Your task to perform on an android device: turn off priority inbox in the gmail app Image 0: 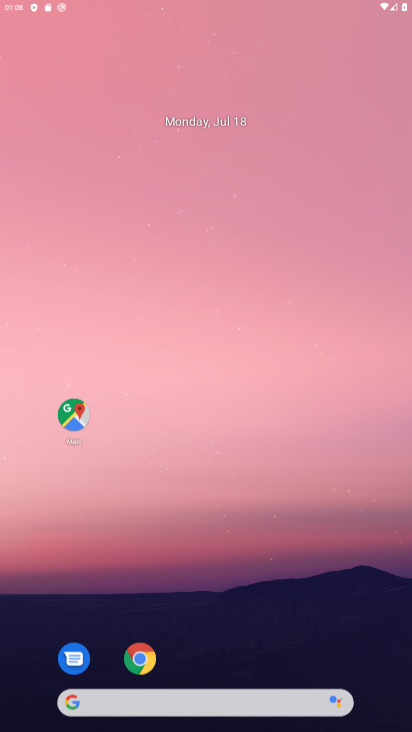
Step 0: click (206, 57)
Your task to perform on an android device: turn off priority inbox in the gmail app Image 1: 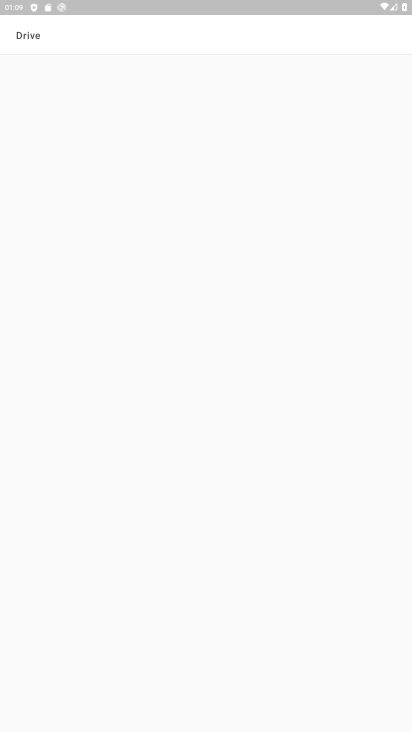
Step 1: press home button
Your task to perform on an android device: turn off priority inbox in the gmail app Image 2: 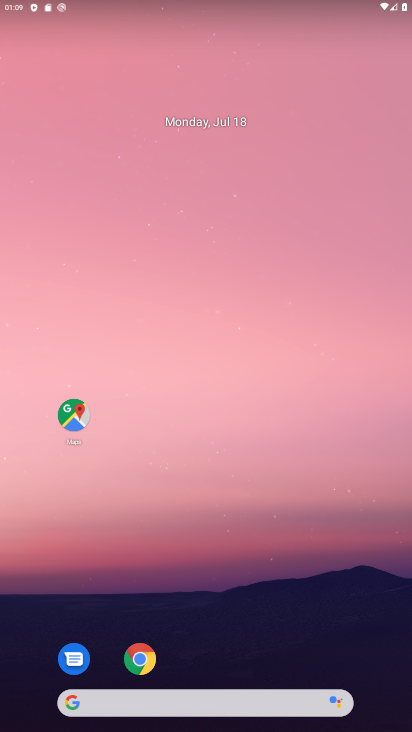
Step 2: drag from (282, 660) to (211, 155)
Your task to perform on an android device: turn off priority inbox in the gmail app Image 3: 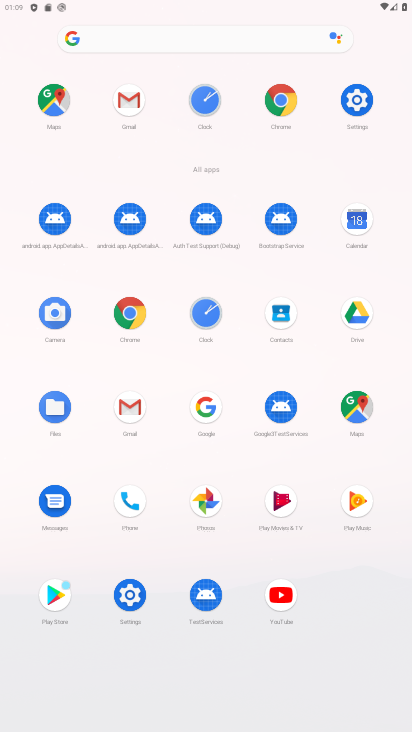
Step 3: click (130, 109)
Your task to perform on an android device: turn off priority inbox in the gmail app Image 4: 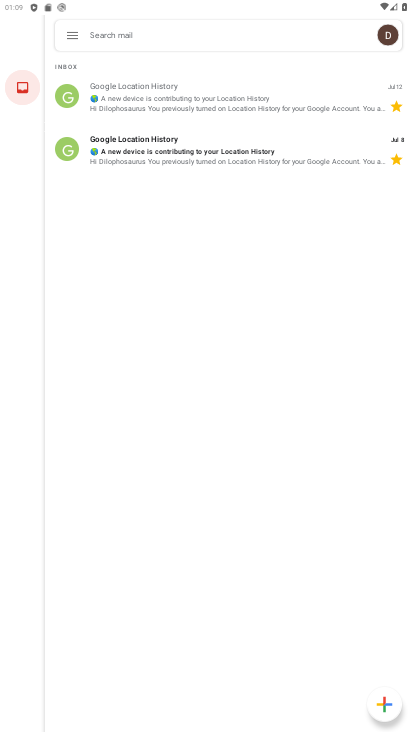
Step 4: click (67, 34)
Your task to perform on an android device: turn off priority inbox in the gmail app Image 5: 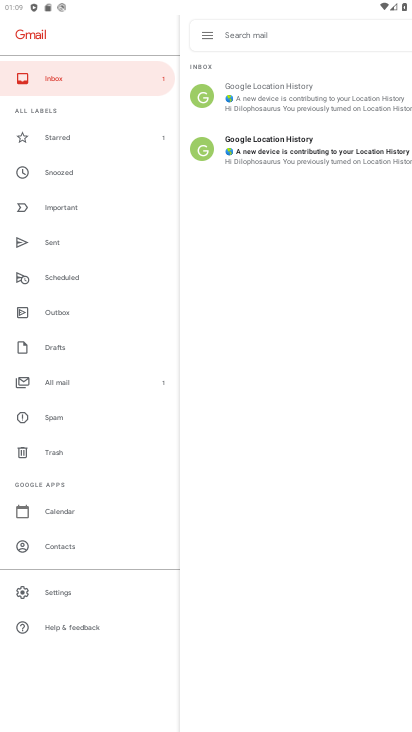
Step 5: click (54, 599)
Your task to perform on an android device: turn off priority inbox in the gmail app Image 6: 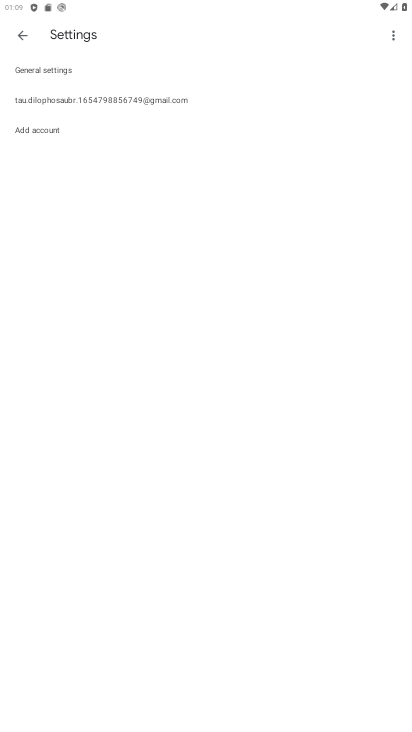
Step 6: click (88, 97)
Your task to perform on an android device: turn off priority inbox in the gmail app Image 7: 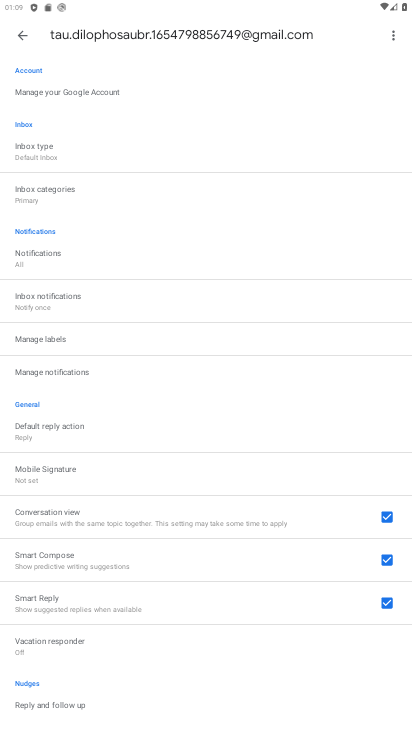
Step 7: click (54, 159)
Your task to perform on an android device: turn off priority inbox in the gmail app Image 8: 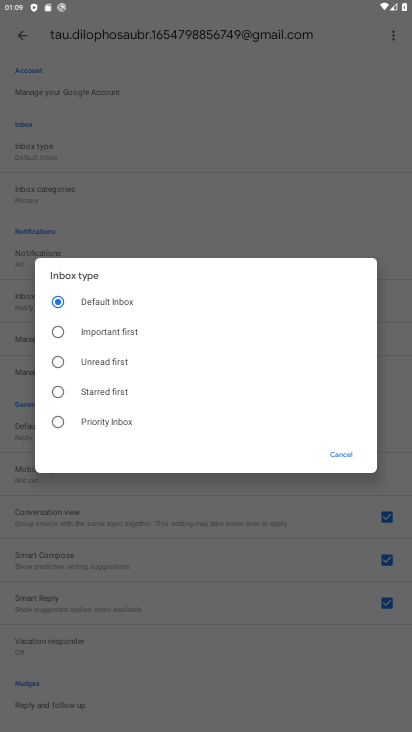
Step 8: task complete